Your task to perform on an android device: Go to Yahoo.com Image 0: 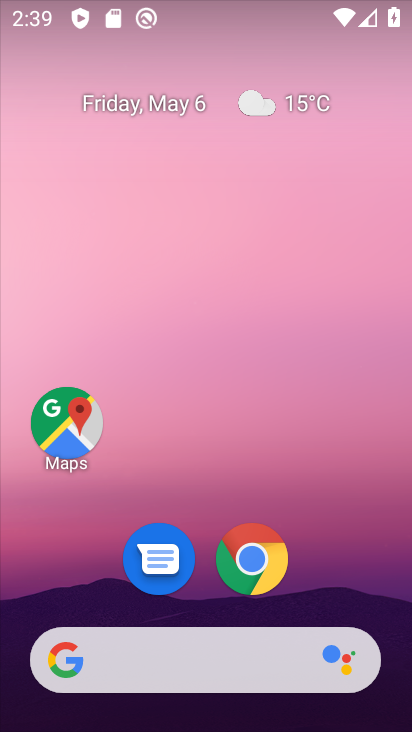
Step 0: click (268, 566)
Your task to perform on an android device: Go to Yahoo.com Image 1: 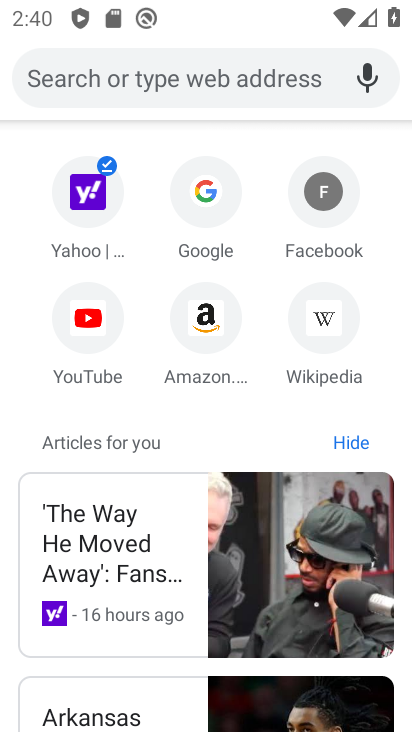
Step 1: click (81, 239)
Your task to perform on an android device: Go to Yahoo.com Image 2: 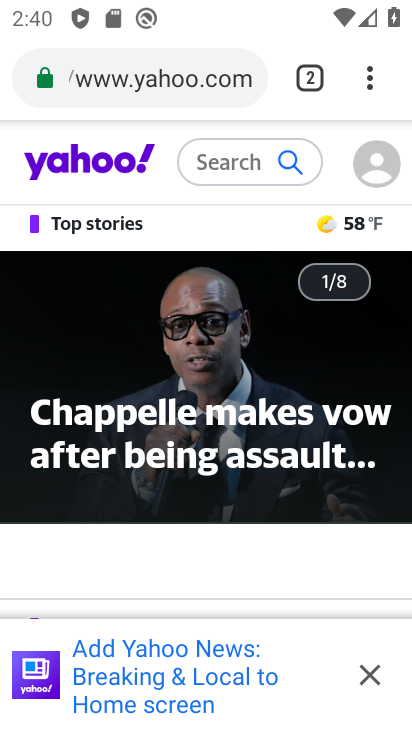
Step 2: task complete